Your task to perform on an android device: turn vacation reply on in the gmail app Image 0: 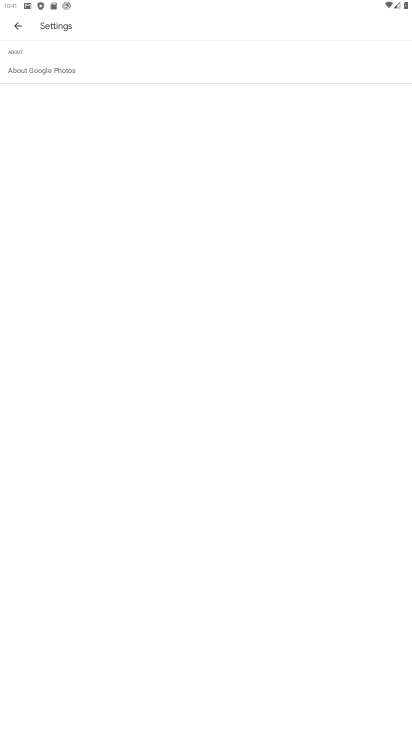
Step 0: press home button
Your task to perform on an android device: turn vacation reply on in the gmail app Image 1: 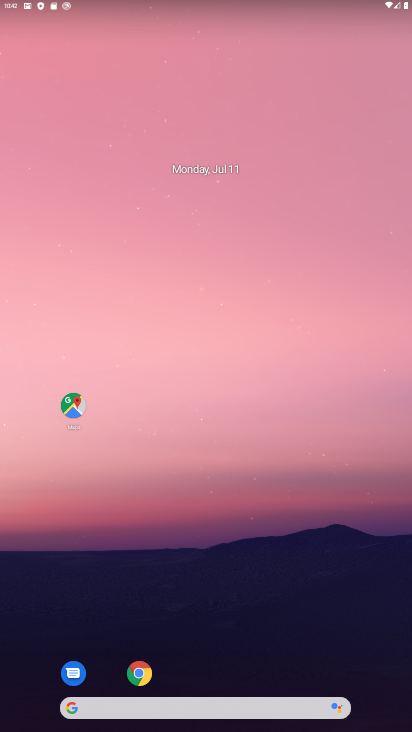
Step 1: drag from (218, 698) to (306, 225)
Your task to perform on an android device: turn vacation reply on in the gmail app Image 2: 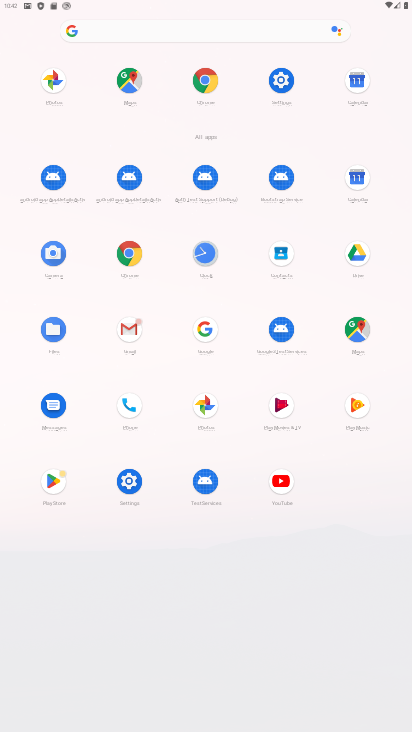
Step 2: click (132, 312)
Your task to perform on an android device: turn vacation reply on in the gmail app Image 3: 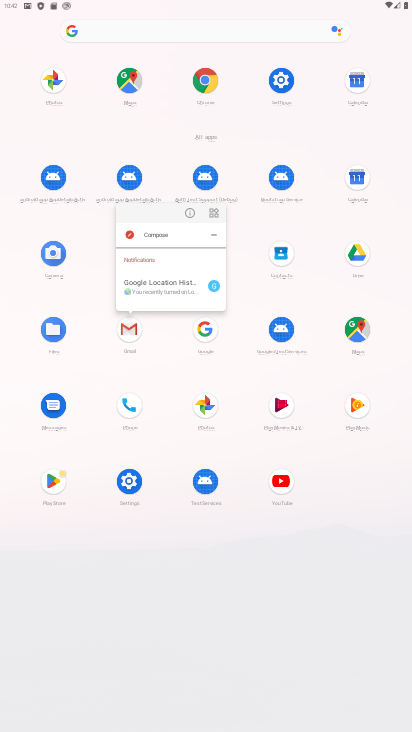
Step 3: click (125, 332)
Your task to perform on an android device: turn vacation reply on in the gmail app Image 4: 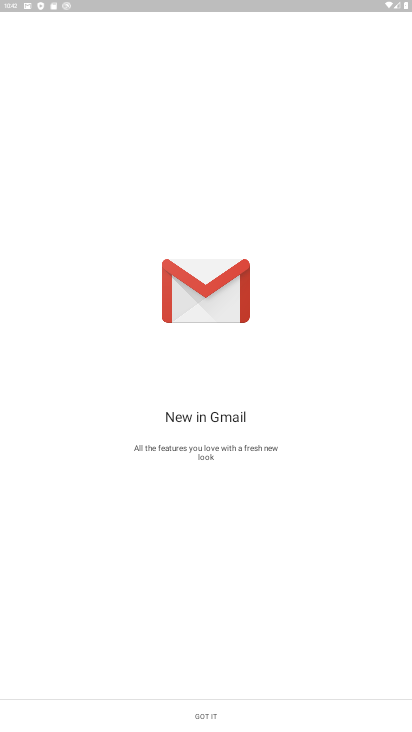
Step 4: click (191, 716)
Your task to perform on an android device: turn vacation reply on in the gmail app Image 5: 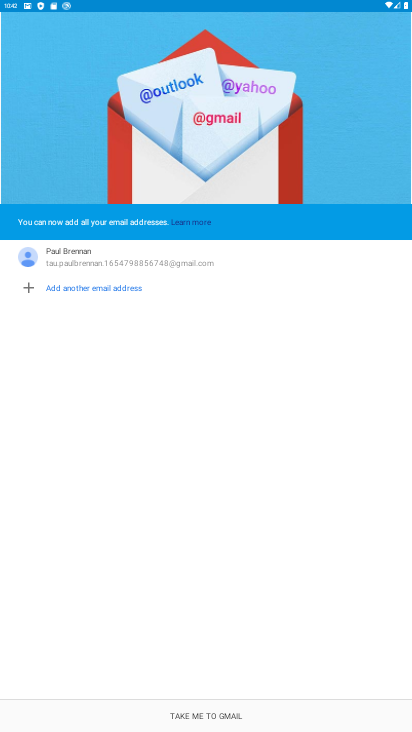
Step 5: click (237, 710)
Your task to perform on an android device: turn vacation reply on in the gmail app Image 6: 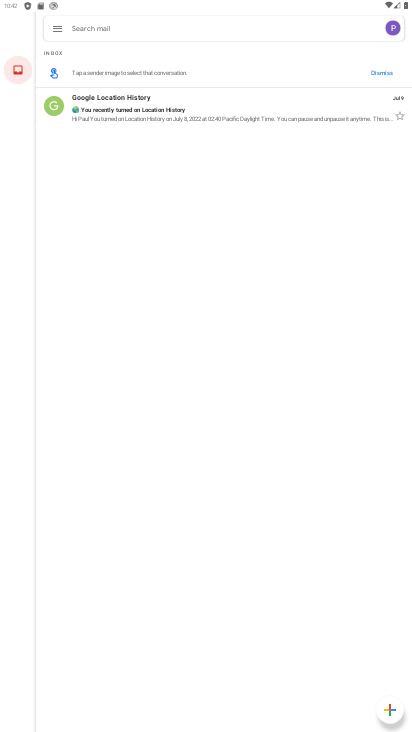
Step 6: click (60, 28)
Your task to perform on an android device: turn vacation reply on in the gmail app Image 7: 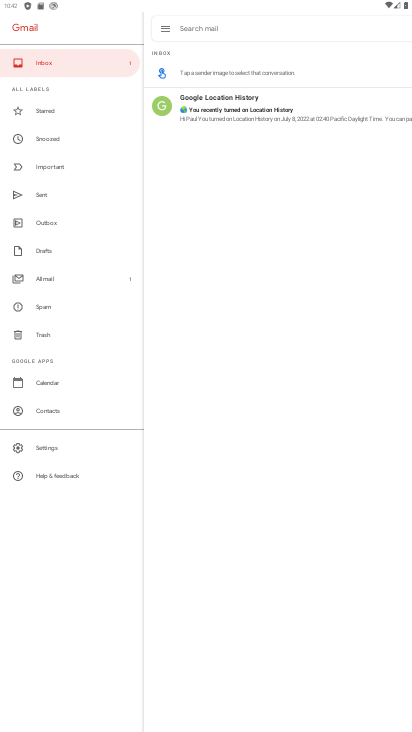
Step 7: click (56, 440)
Your task to perform on an android device: turn vacation reply on in the gmail app Image 8: 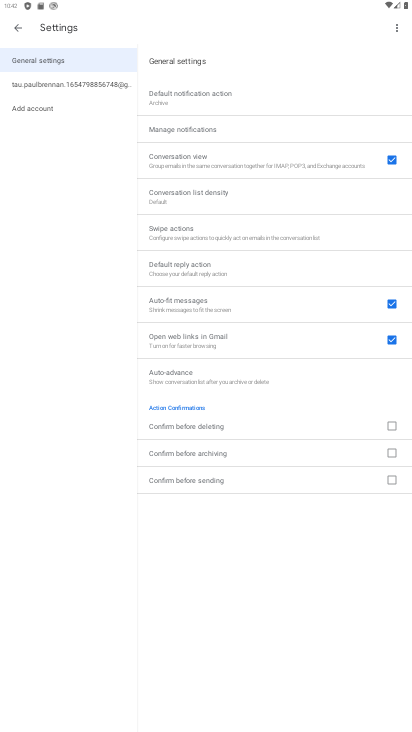
Step 8: click (79, 82)
Your task to perform on an android device: turn vacation reply on in the gmail app Image 9: 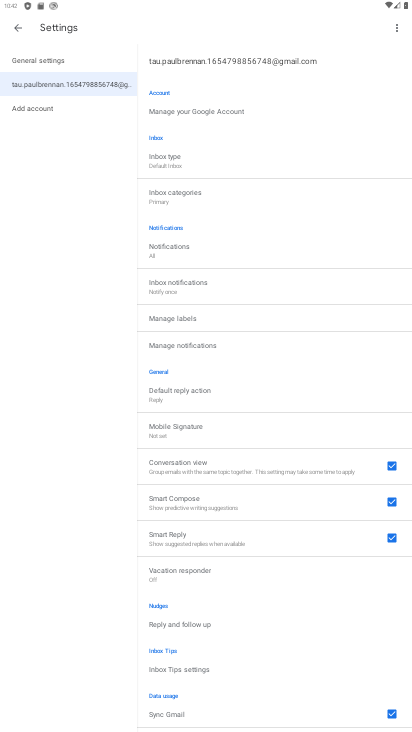
Step 9: click (192, 582)
Your task to perform on an android device: turn vacation reply on in the gmail app Image 10: 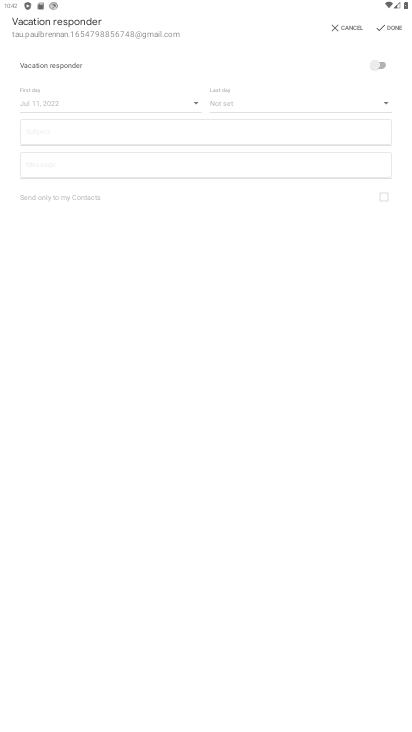
Step 10: click (384, 60)
Your task to perform on an android device: turn vacation reply on in the gmail app Image 11: 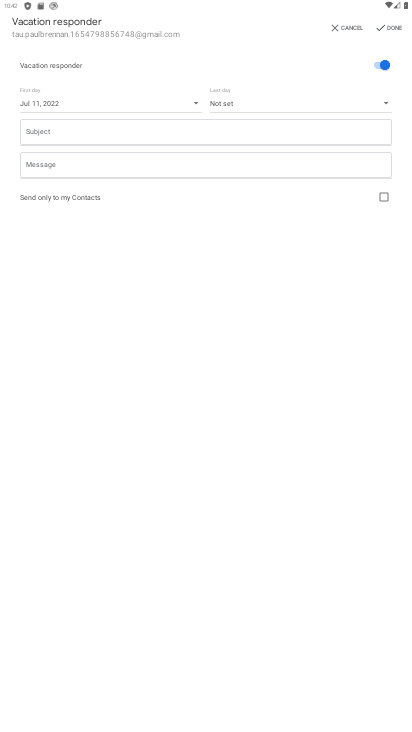
Step 11: click (239, 104)
Your task to perform on an android device: turn vacation reply on in the gmail app Image 12: 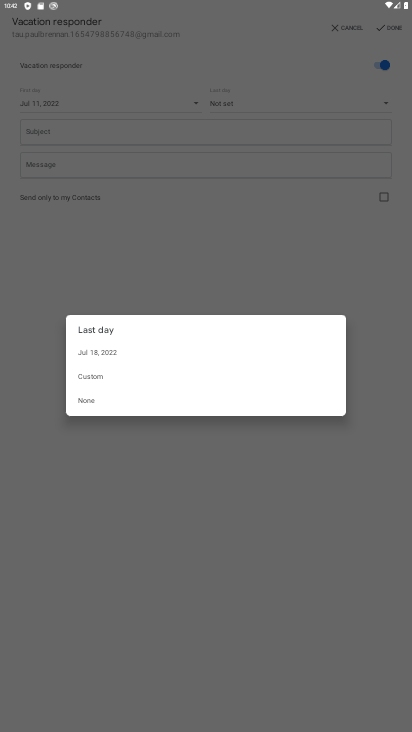
Step 12: click (121, 360)
Your task to perform on an android device: turn vacation reply on in the gmail app Image 13: 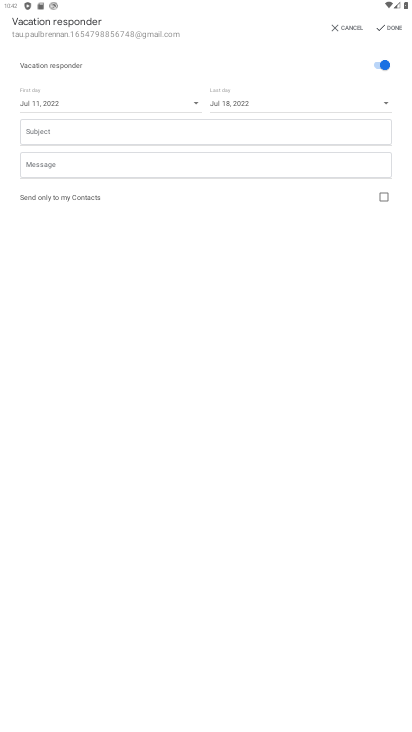
Step 13: click (76, 145)
Your task to perform on an android device: turn vacation reply on in the gmail app Image 14: 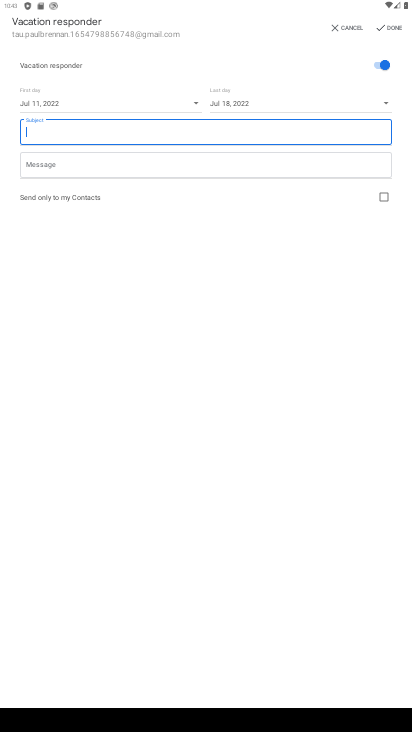
Step 14: type "vaccay"
Your task to perform on an android device: turn vacation reply on in the gmail app Image 15: 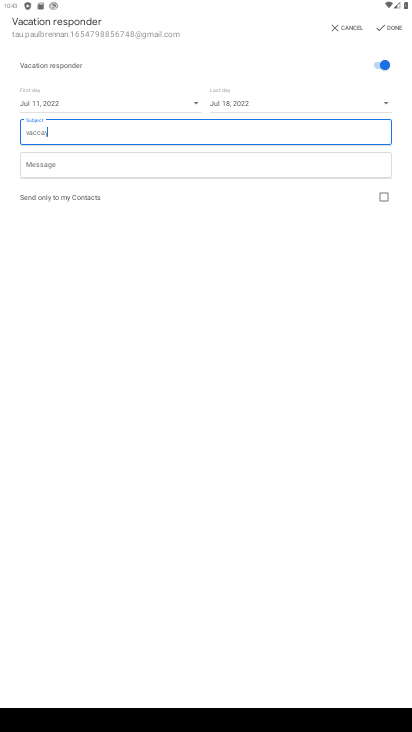
Step 15: click (65, 157)
Your task to perform on an android device: turn vacation reply on in the gmail app Image 16: 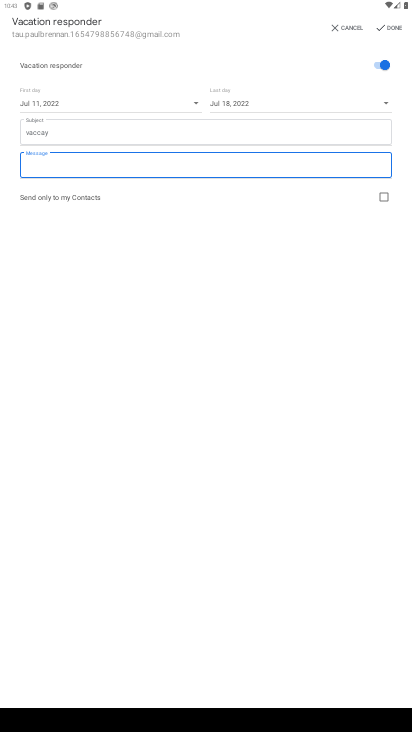
Step 16: click (390, 21)
Your task to perform on an android device: turn vacation reply on in the gmail app Image 17: 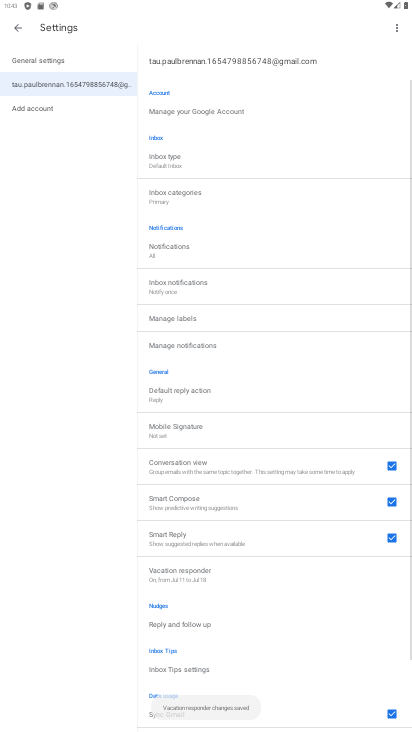
Step 17: task complete